Your task to perform on an android device: View the shopping cart on ebay. Add logitech g502 to the cart on ebay, then select checkout. Image 0: 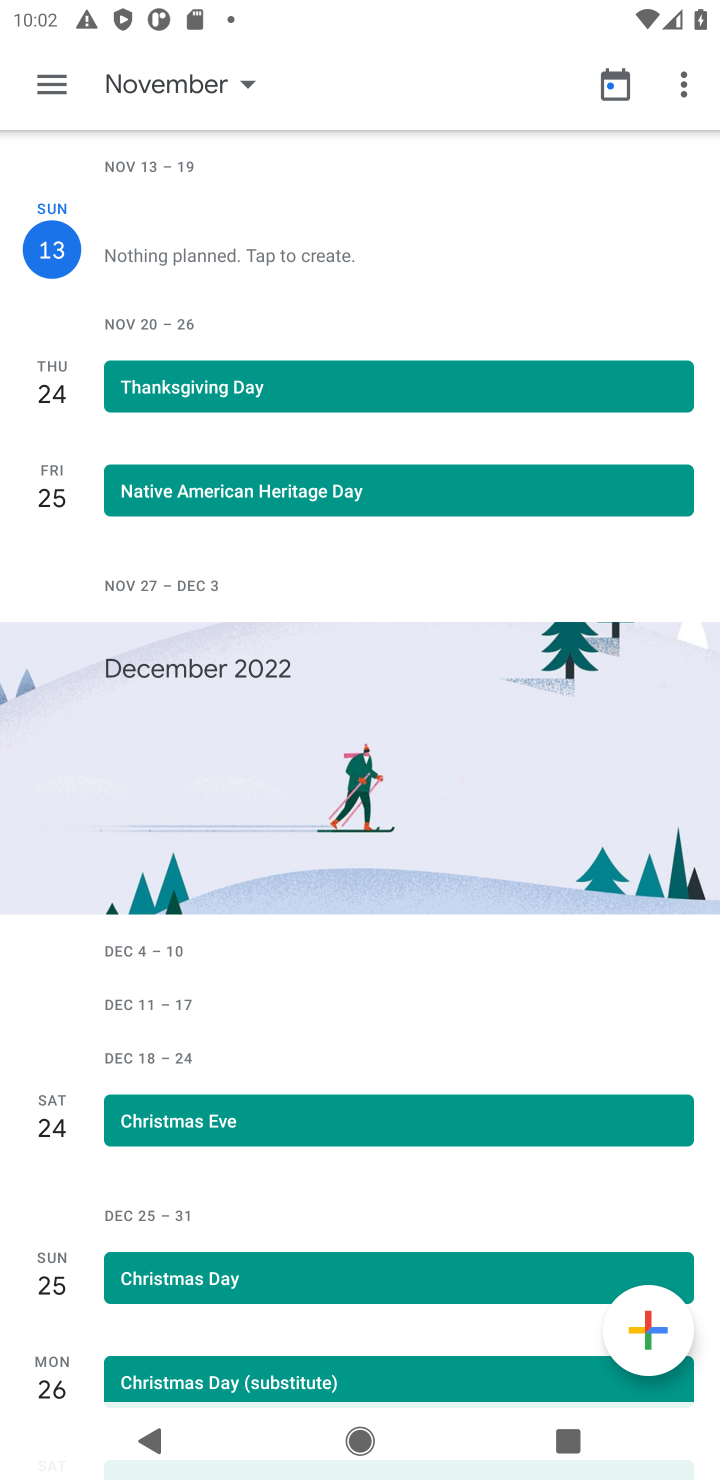
Step 0: press home button
Your task to perform on an android device: View the shopping cart on ebay. Add logitech g502 to the cart on ebay, then select checkout. Image 1: 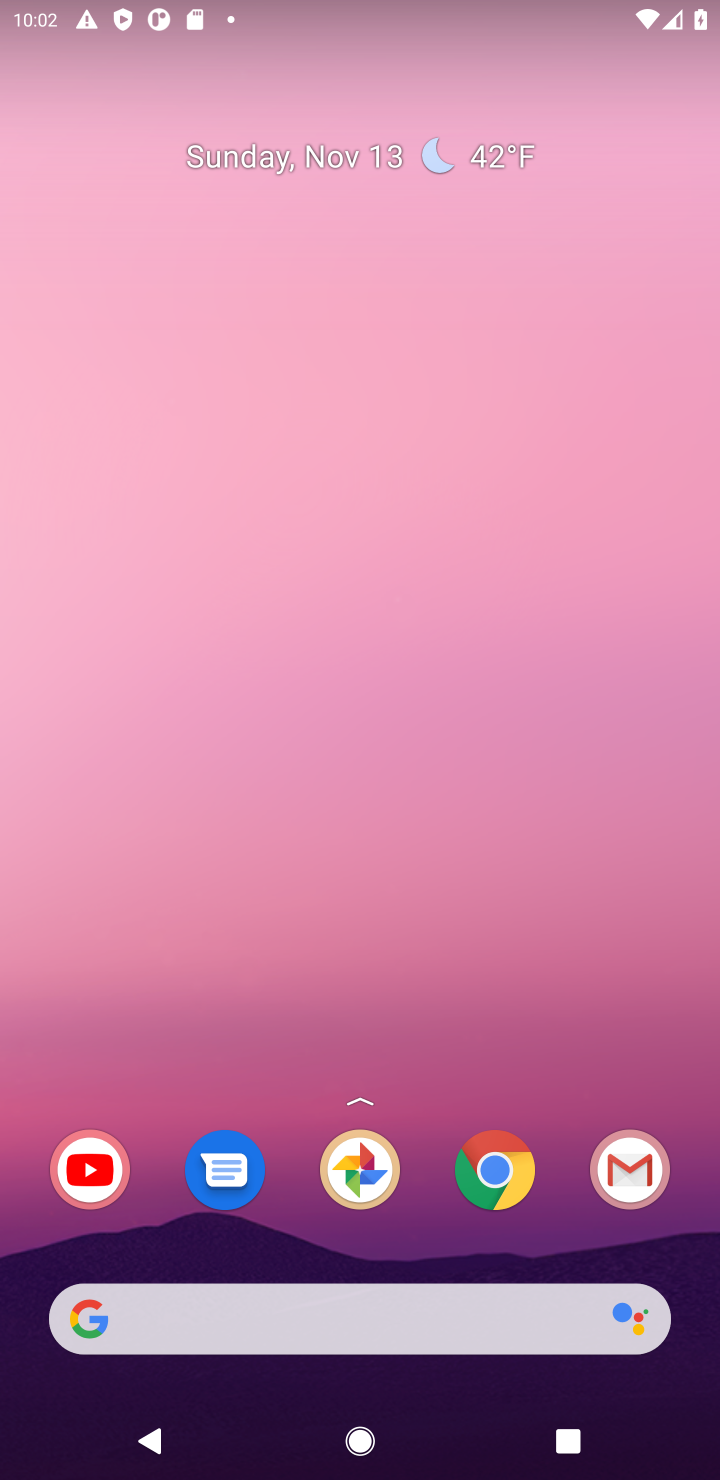
Step 1: drag from (335, 951) to (399, 54)
Your task to perform on an android device: View the shopping cart on ebay. Add logitech g502 to the cart on ebay, then select checkout. Image 2: 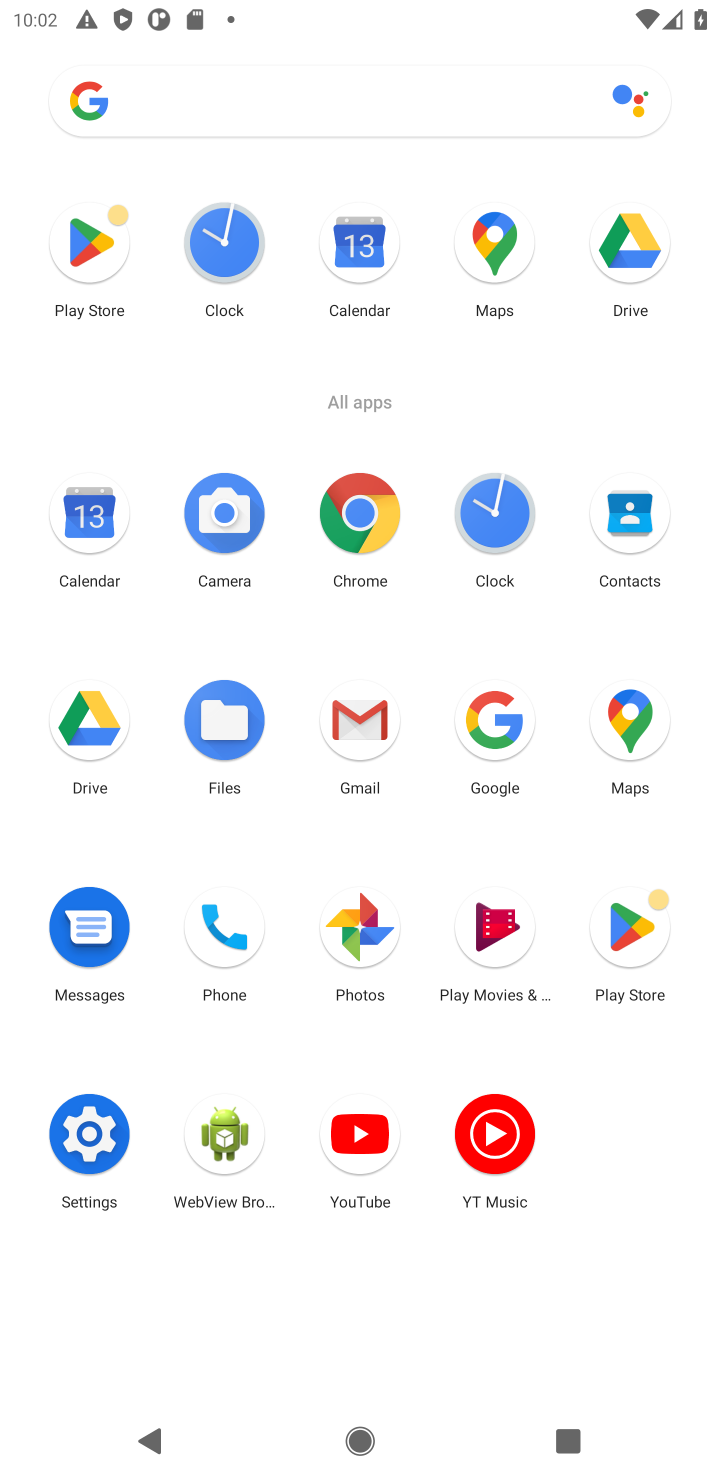
Step 2: click (375, 514)
Your task to perform on an android device: View the shopping cart on ebay. Add logitech g502 to the cart on ebay, then select checkout. Image 3: 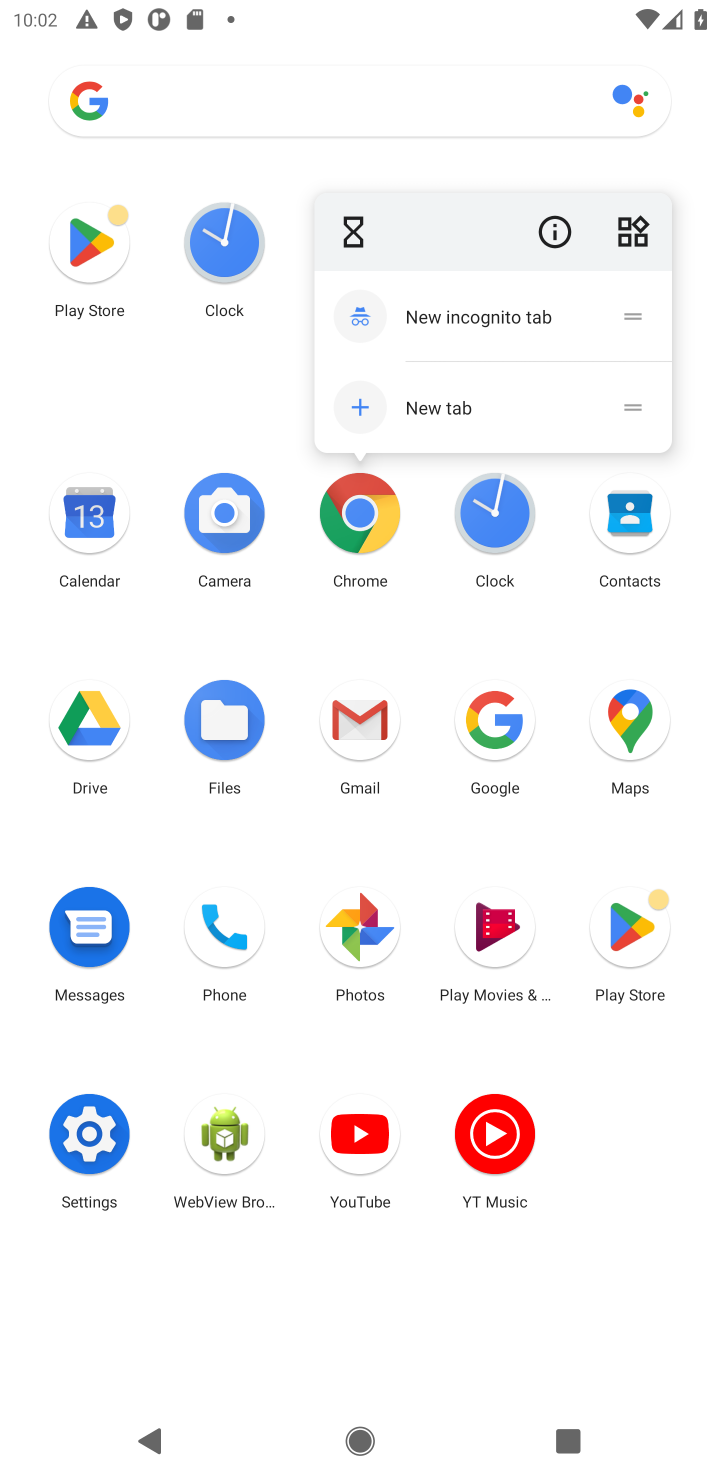
Step 3: click (375, 509)
Your task to perform on an android device: View the shopping cart on ebay. Add logitech g502 to the cart on ebay, then select checkout. Image 4: 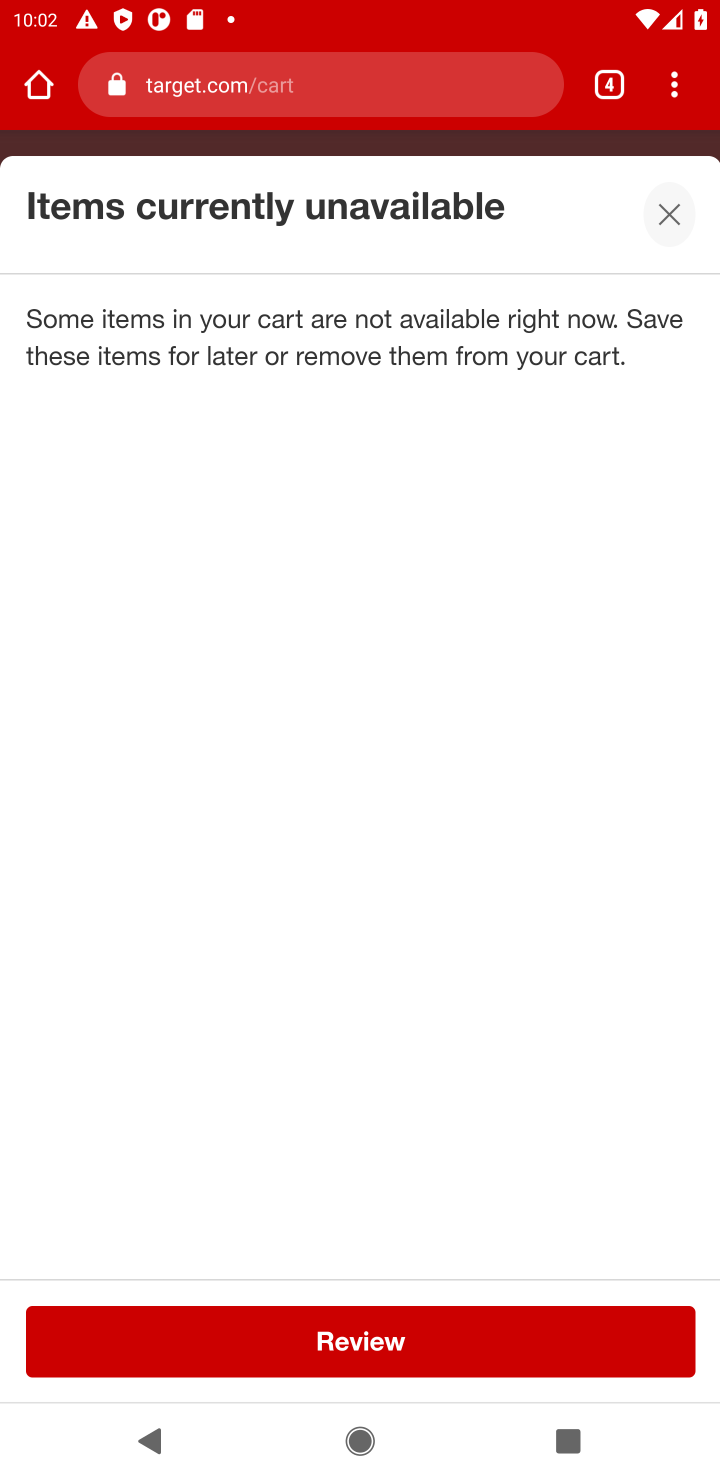
Step 4: click (347, 96)
Your task to perform on an android device: View the shopping cart on ebay. Add logitech g502 to the cart on ebay, then select checkout. Image 5: 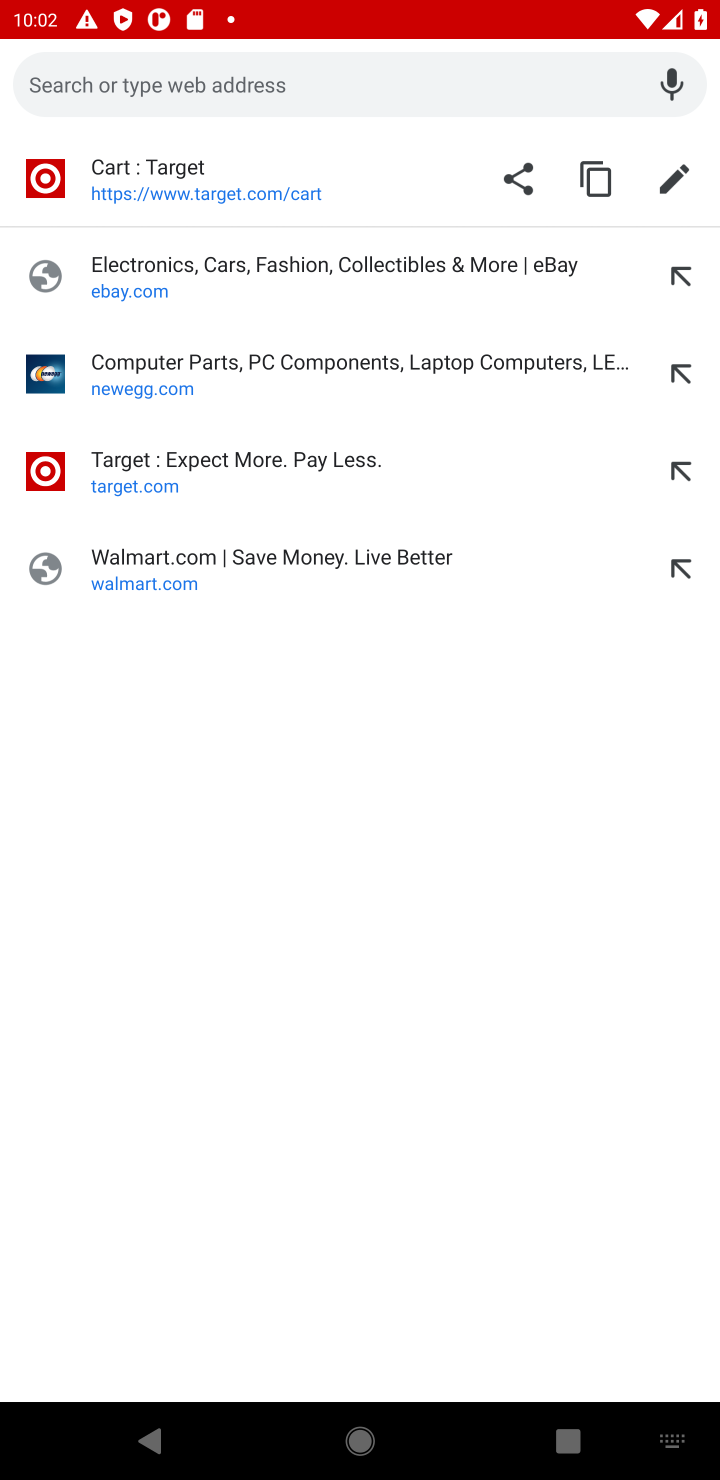
Step 5: type "ebay"
Your task to perform on an android device: View the shopping cart on ebay. Add logitech g502 to the cart on ebay, then select checkout. Image 6: 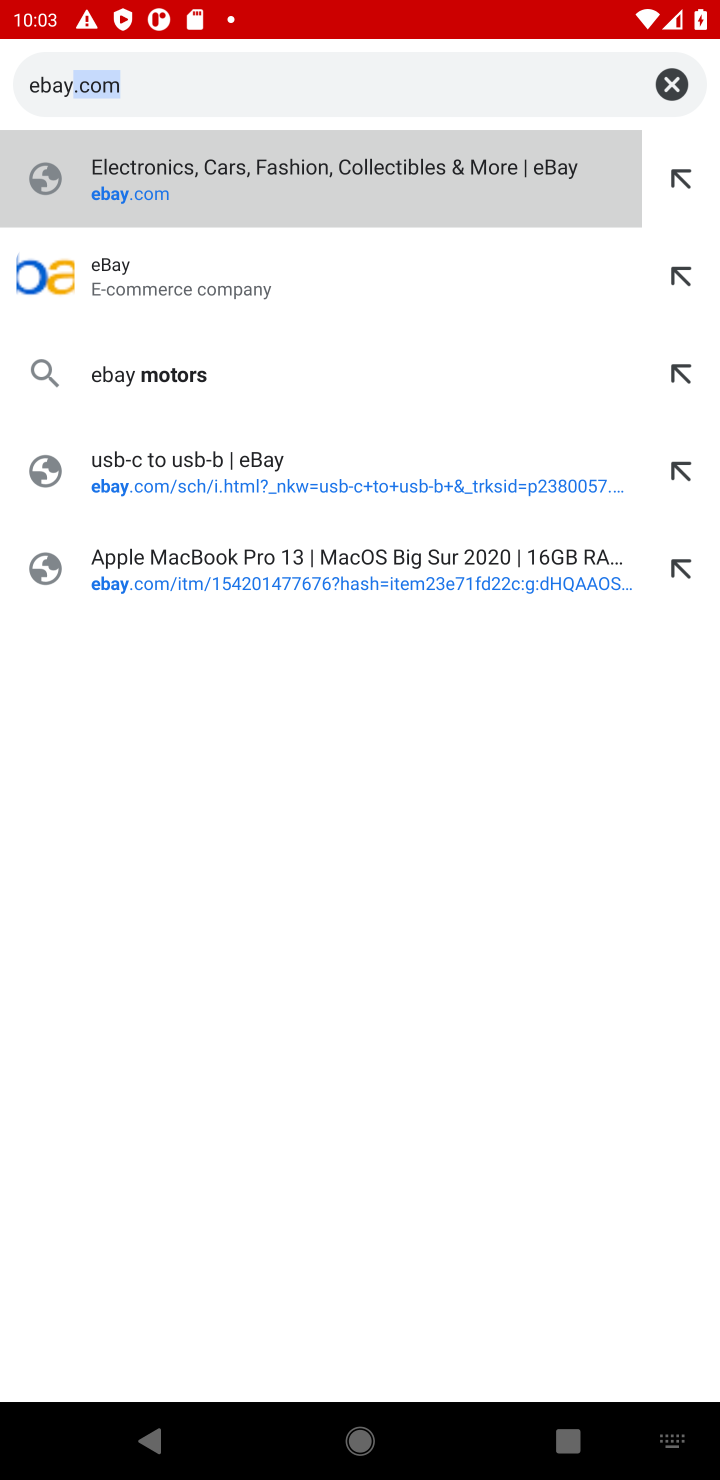
Step 6: press enter
Your task to perform on an android device: View the shopping cart on ebay. Add logitech g502 to the cart on ebay, then select checkout. Image 7: 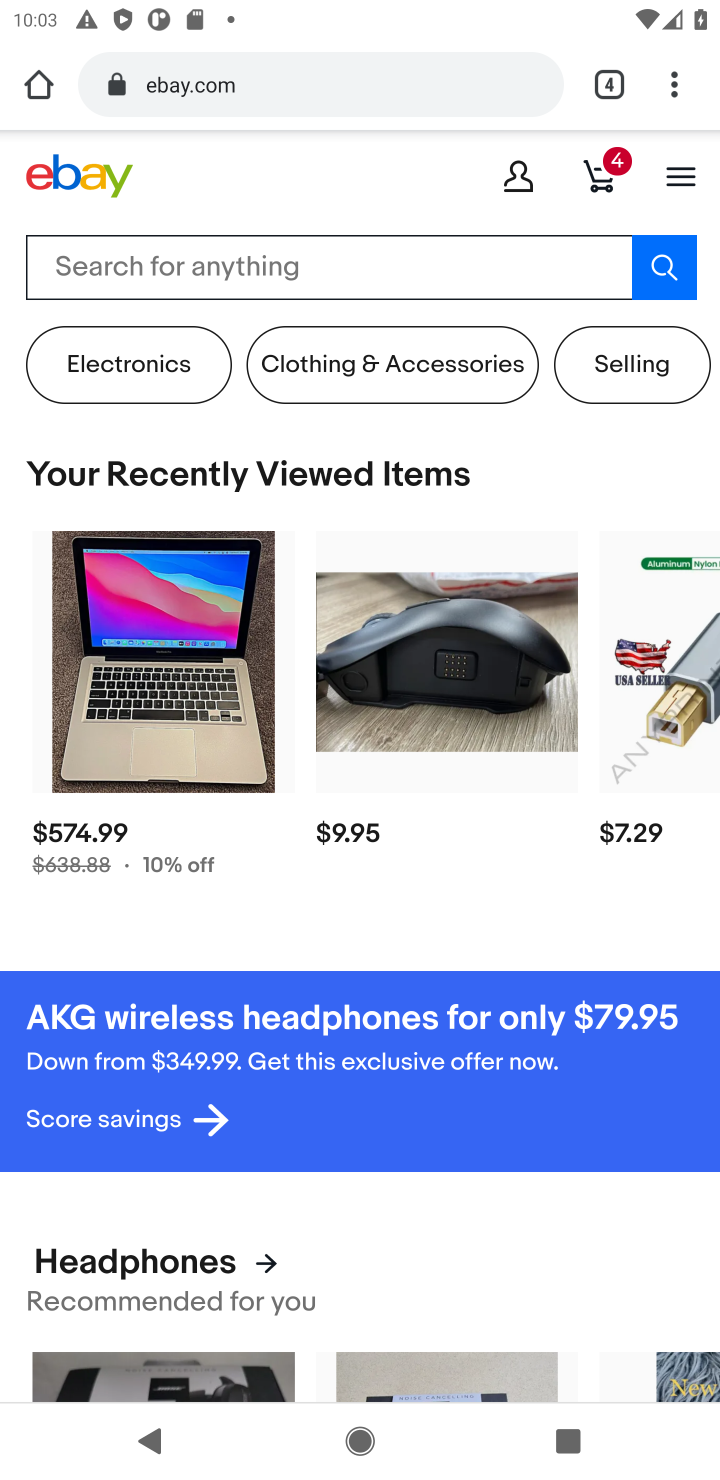
Step 7: click (282, 259)
Your task to perform on an android device: View the shopping cart on ebay. Add logitech g502 to the cart on ebay, then select checkout. Image 8: 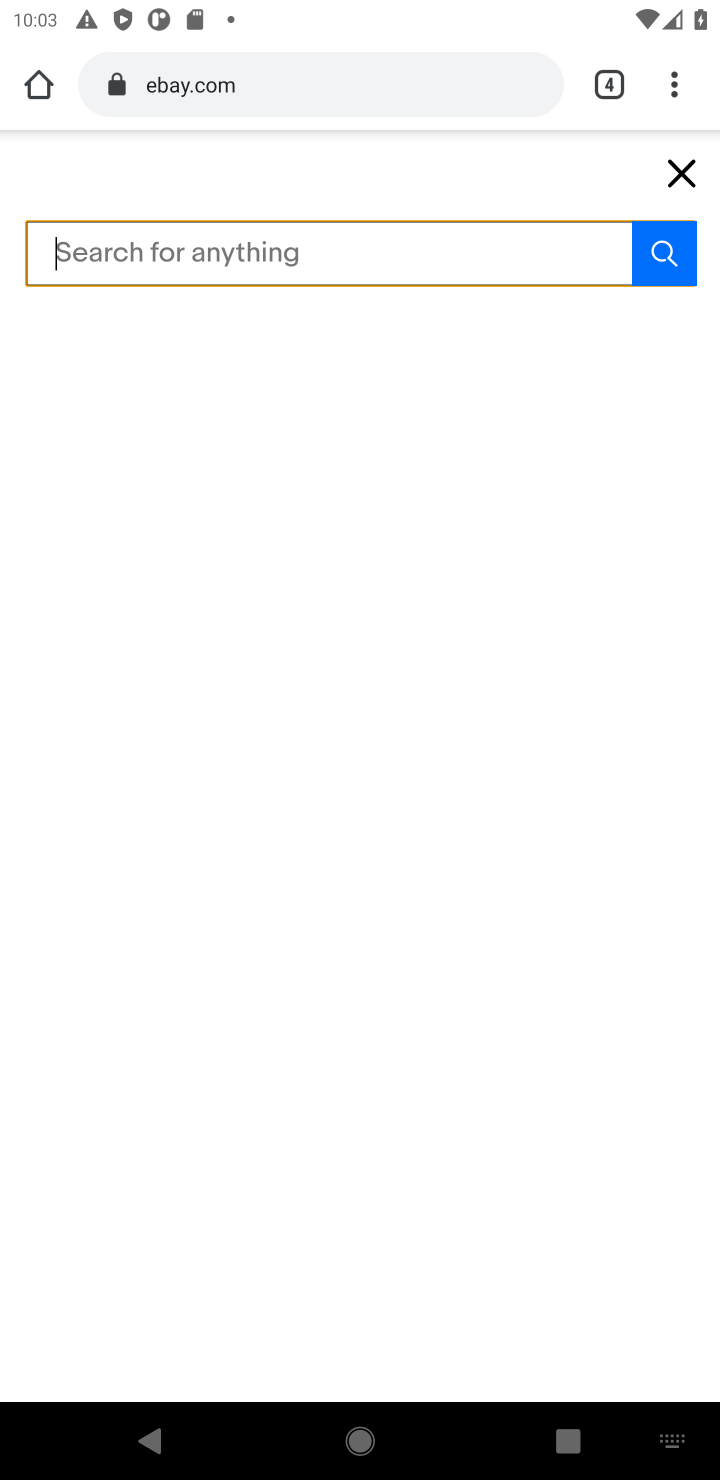
Step 8: type "logitech g502 "
Your task to perform on an android device: View the shopping cart on ebay. Add logitech g502 to the cart on ebay, then select checkout. Image 9: 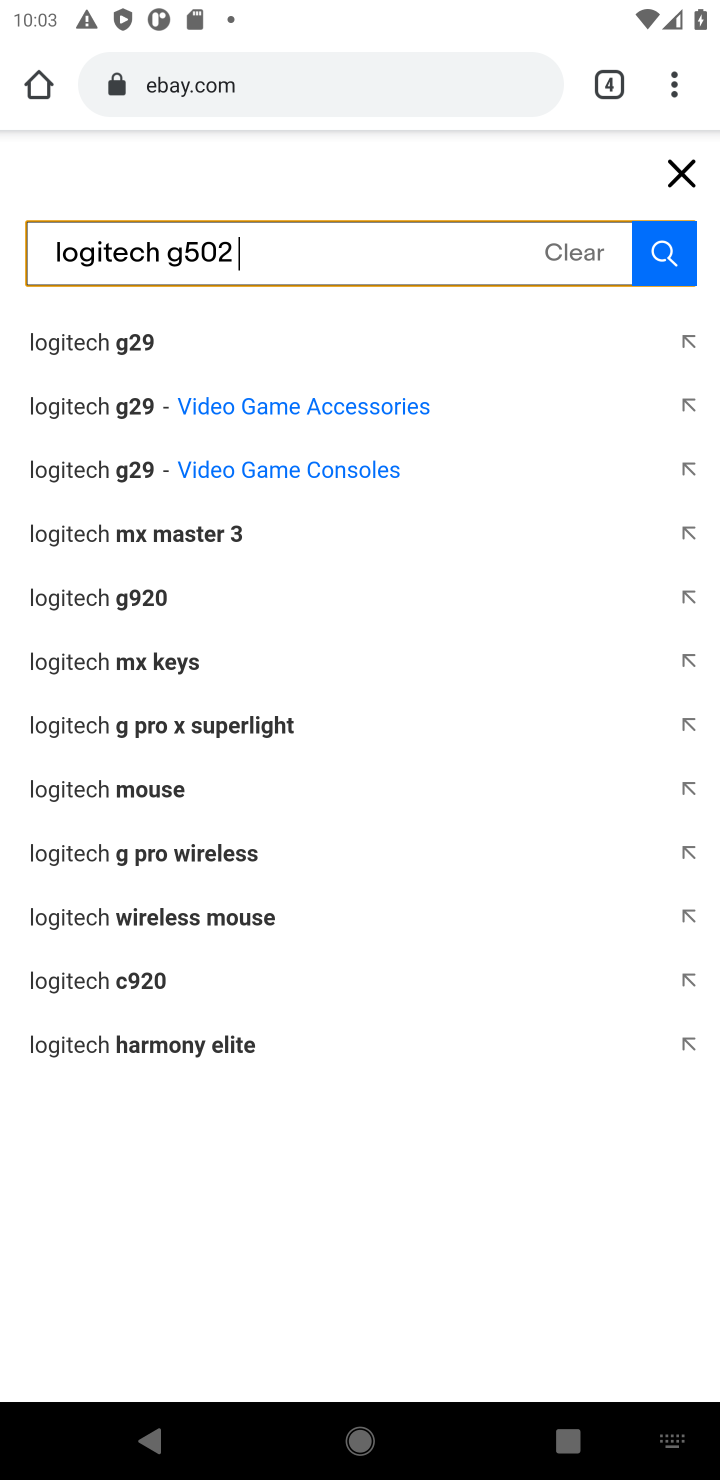
Step 9: press enter
Your task to perform on an android device: View the shopping cart on ebay. Add logitech g502 to the cart on ebay, then select checkout. Image 10: 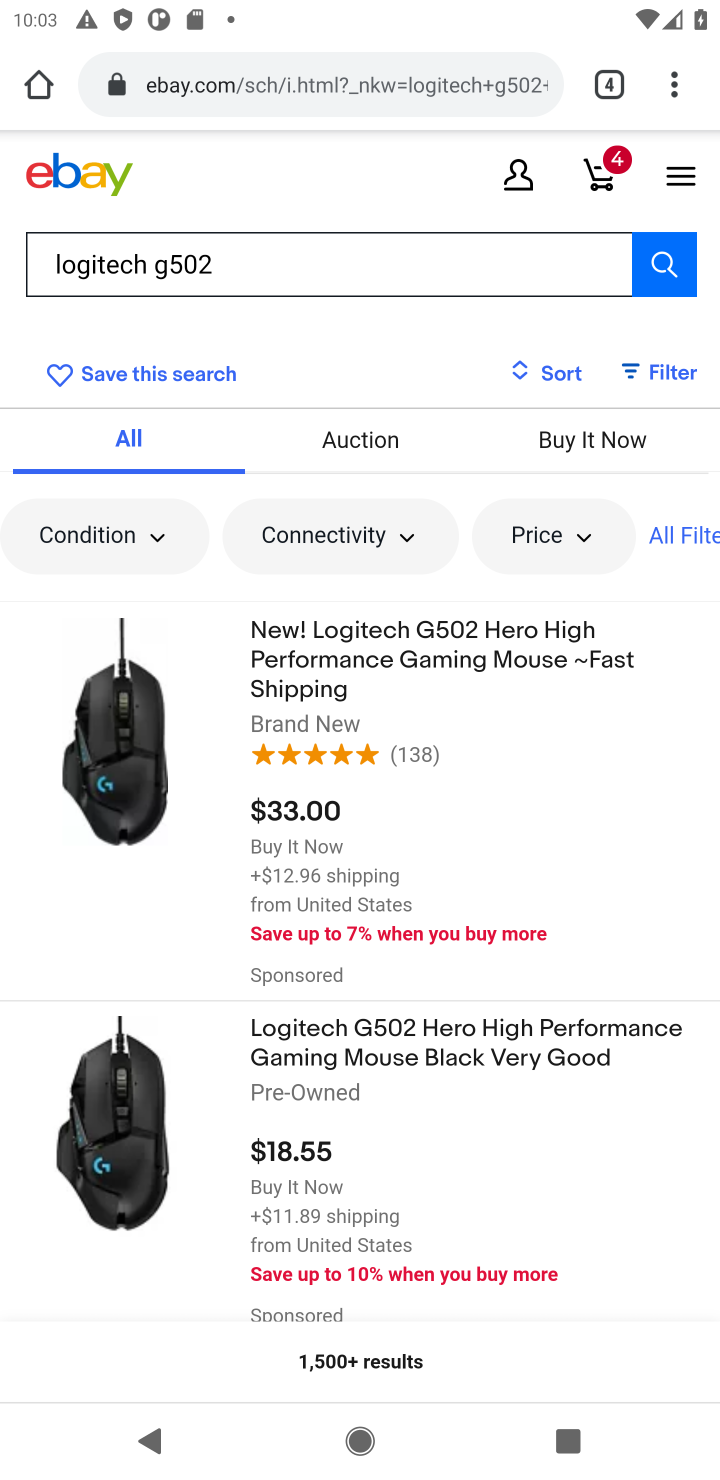
Step 10: click (340, 692)
Your task to perform on an android device: View the shopping cart on ebay. Add logitech g502 to the cart on ebay, then select checkout. Image 11: 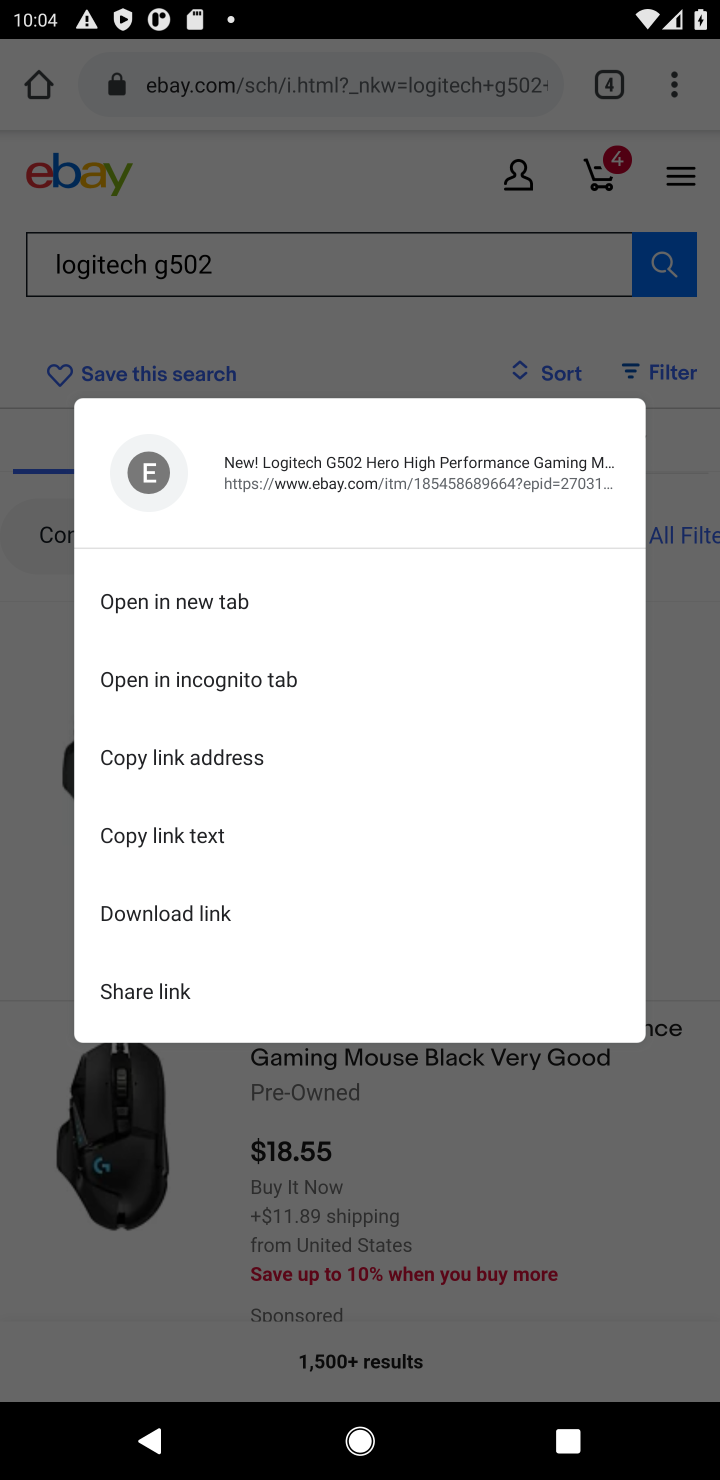
Step 11: click (229, 604)
Your task to perform on an android device: View the shopping cart on ebay. Add logitech g502 to the cart on ebay, then select checkout. Image 12: 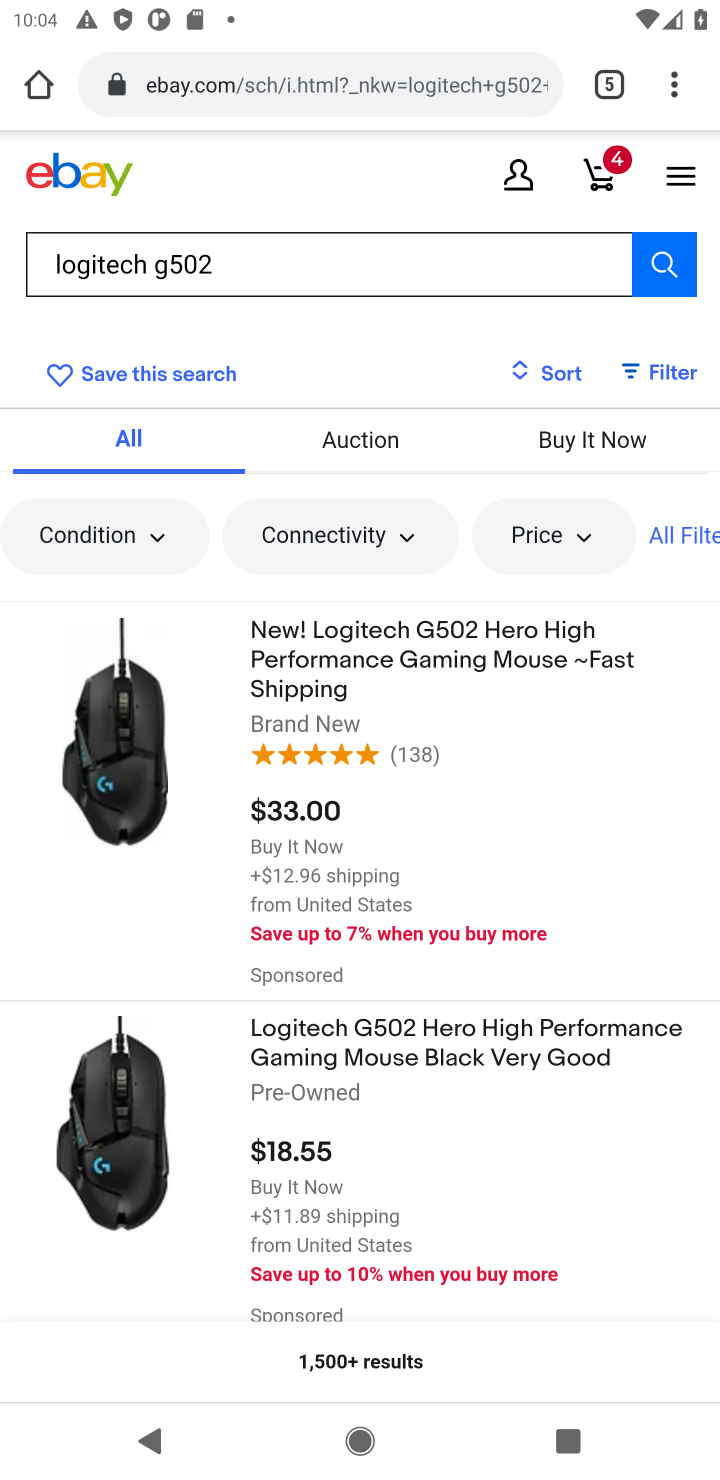
Step 12: click (293, 652)
Your task to perform on an android device: View the shopping cart on ebay. Add logitech g502 to the cart on ebay, then select checkout. Image 13: 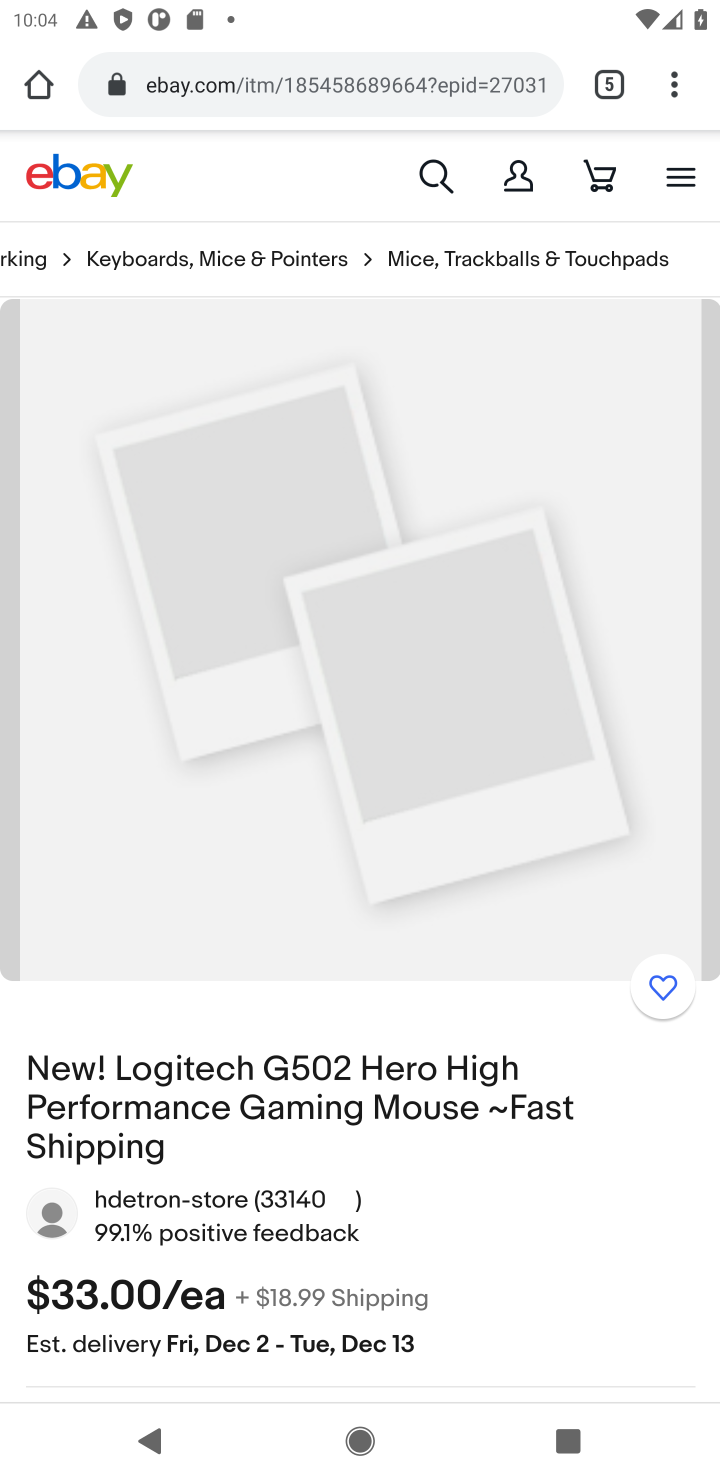
Step 13: drag from (408, 1164) to (430, 537)
Your task to perform on an android device: View the shopping cart on ebay. Add logitech g502 to the cart on ebay, then select checkout. Image 14: 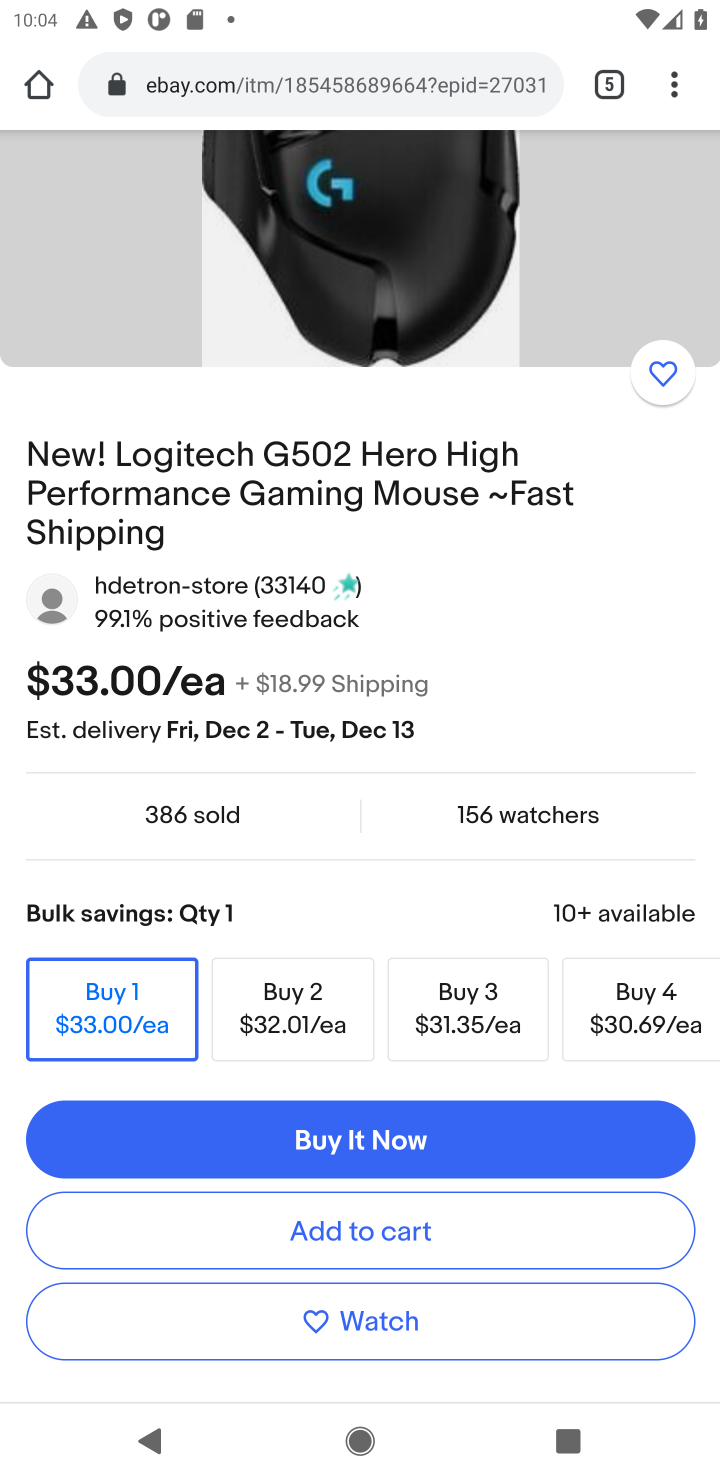
Step 14: click (380, 1228)
Your task to perform on an android device: View the shopping cart on ebay. Add logitech g502 to the cart on ebay, then select checkout. Image 15: 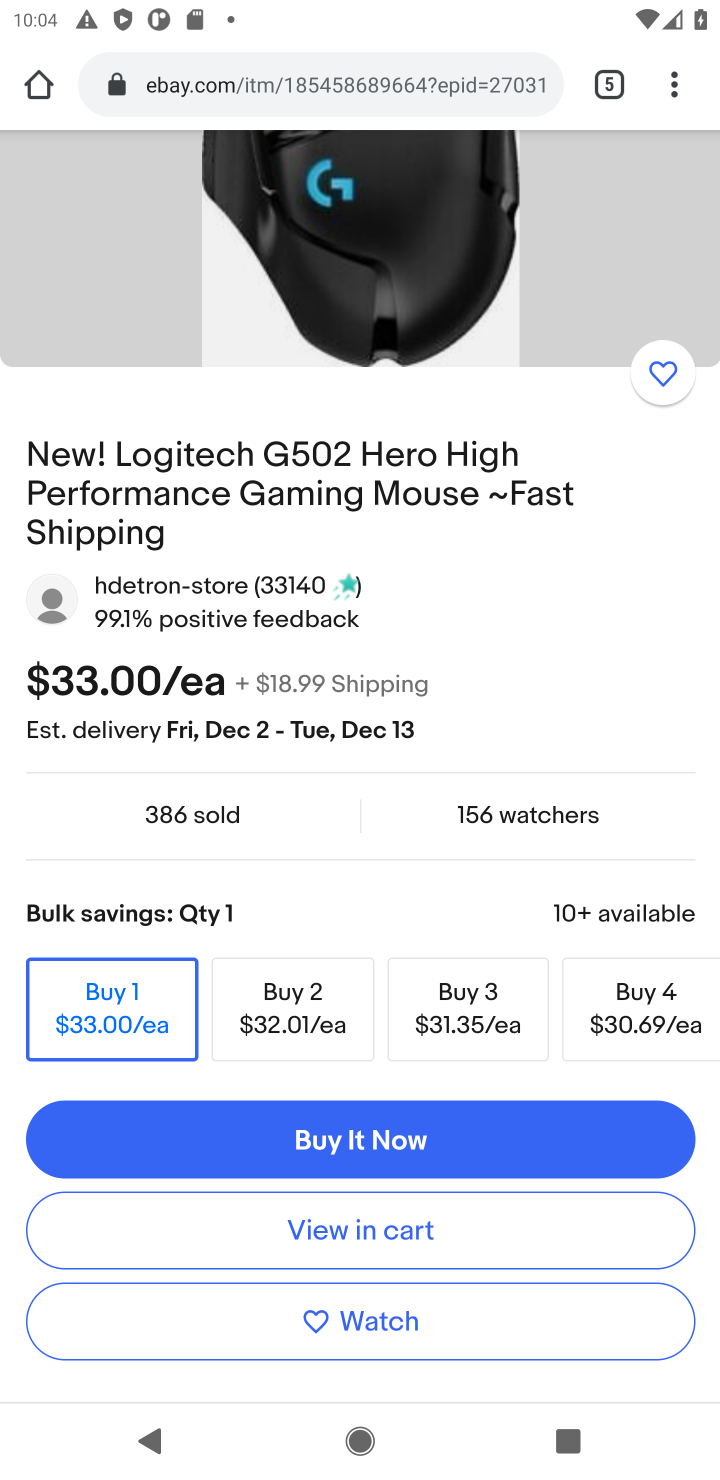
Step 15: click (380, 1228)
Your task to perform on an android device: View the shopping cart on ebay. Add logitech g502 to the cart on ebay, then select checkout. Image 16: 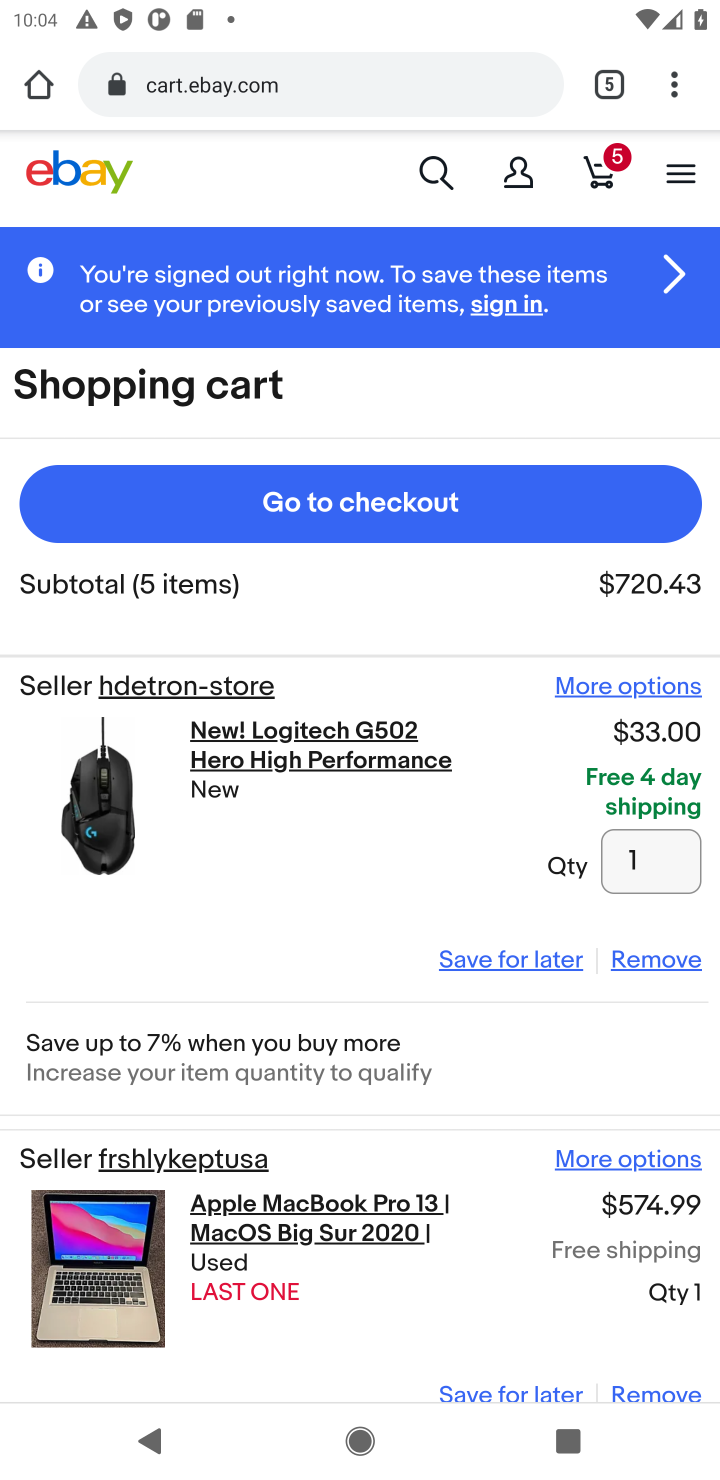
Step 16: click (372, 518)
Your task to perform on an android device: View the shopping cart on ebay. Add logitech g502 to the cart on ebay, then select checkout. Image 17: 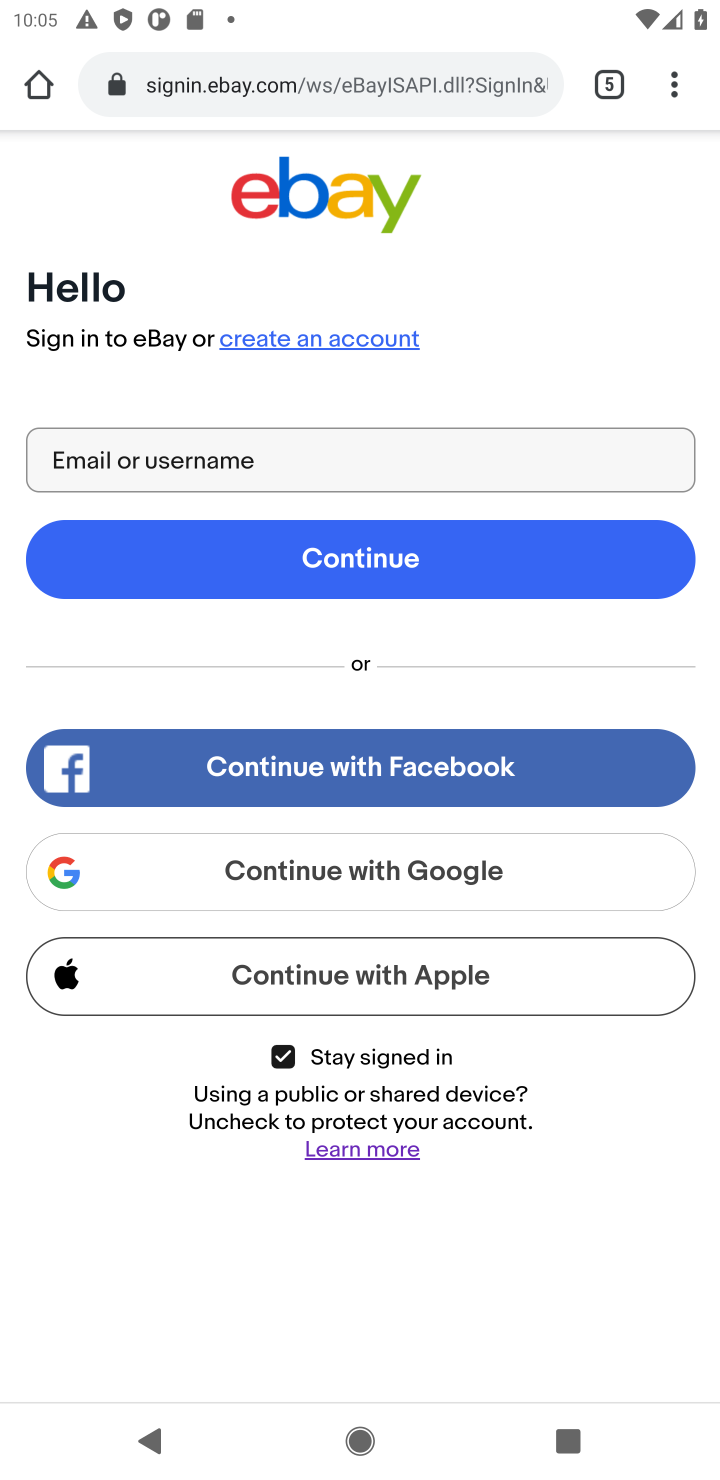
Step 17: task complete